Your task to perform on an android device: change the upload size in google photos Image 0: 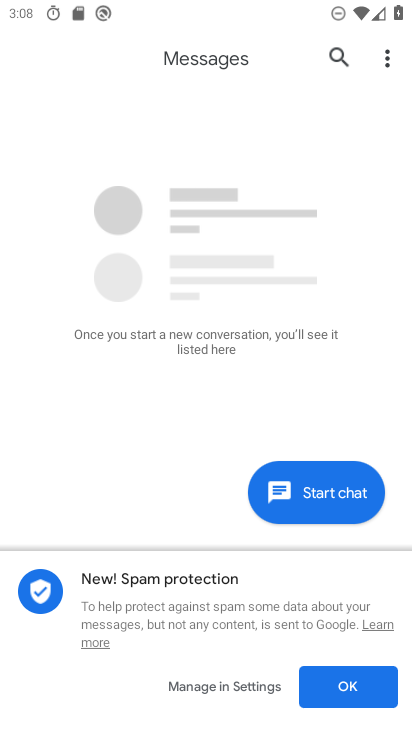
Step 0: press home button
Your task to perform on an android device: change the upload size in google photos Image 1: 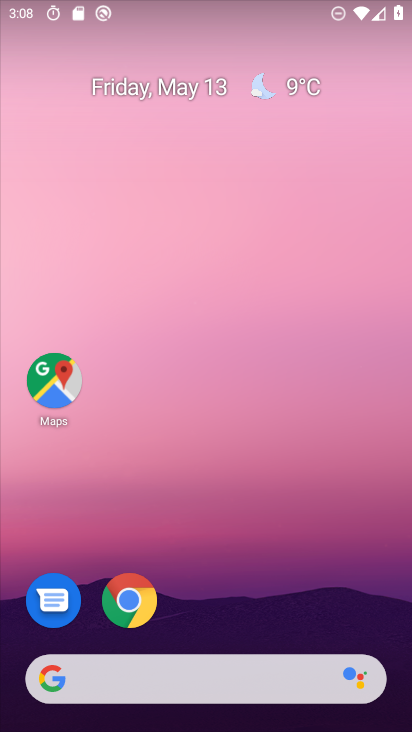
Step 1: drag from (211, 602) to (244, 65)
Your task to perform on an android device: change the upload size in google photos Image 2: 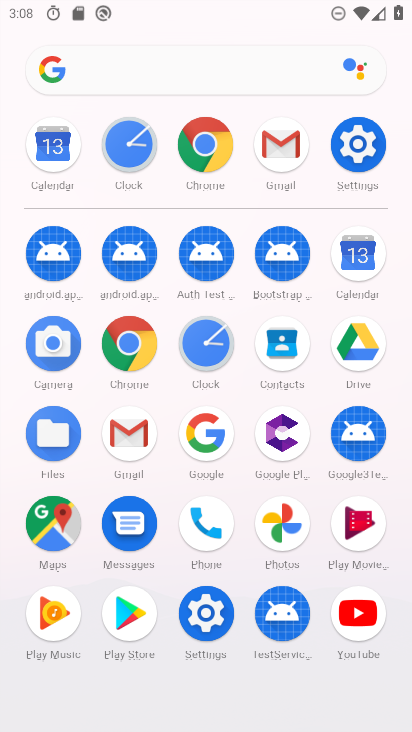
Step 2: click (284, 512)
Your task to perform on an android device: change the upload size in google photos Image 3: 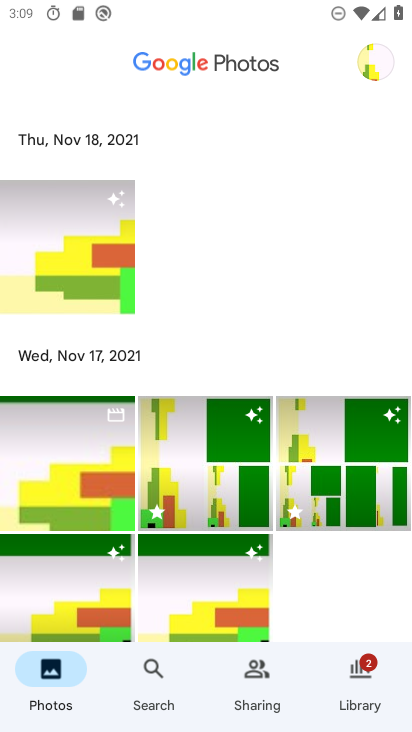
Step 3: click (312, 277)
Your task to perform on an android device: change the upload size in google photos Image 4: 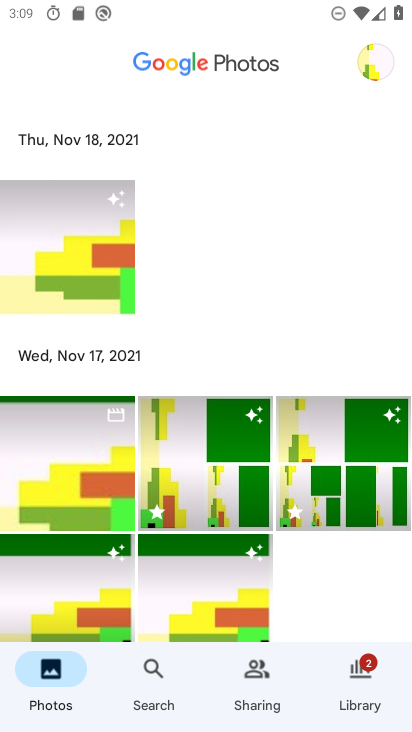
Step 4: click (386, 64)
Your task to perform on an android device: change the upload size in google photos Image 5: 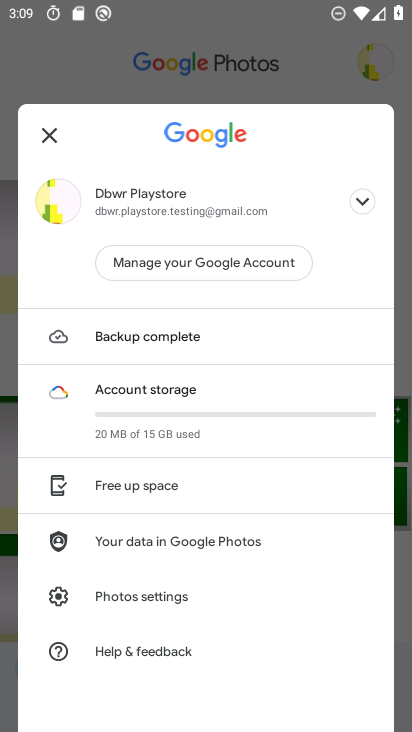
Step 5: click (157, 590)
Your task to perform on an android device: change the upload size in google photos Image 6: 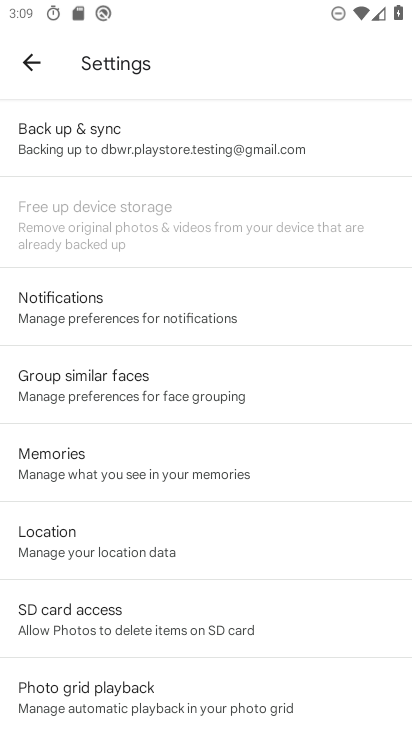
Step 6: click (132, 148)
Your task to perform on an android device: change the upload size in google photos Image 7: 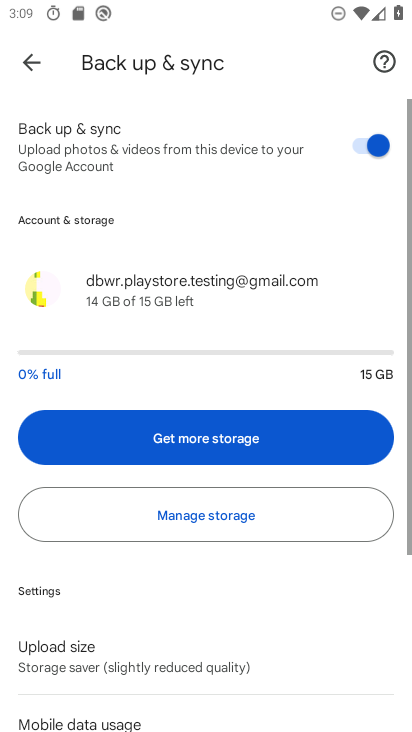
Step 7: drag from (155, 573) to (309, 227)
Your task to perform on an android device: change the upload size in google photos Image 8: 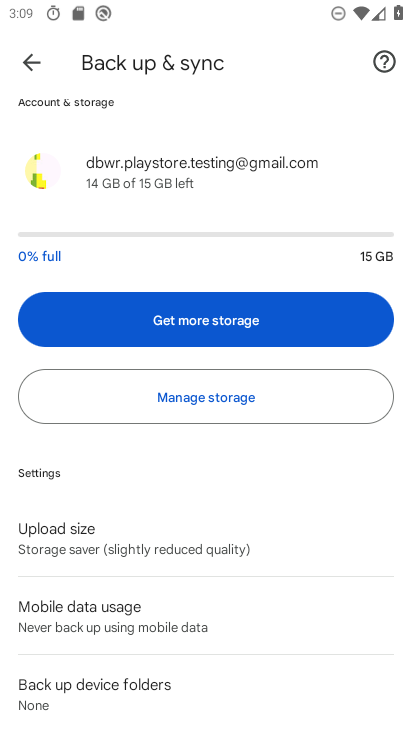
Step 8: click (75, 538)
Your task to perform on an android device: change the upload size in google photos Image 9: 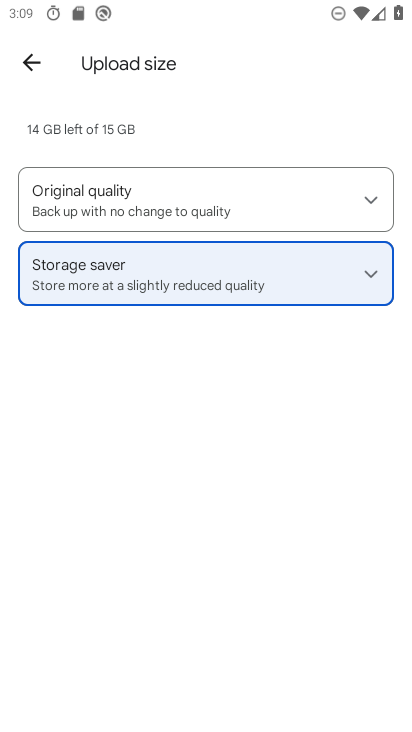
Step 9: click (248, 218)
Your task to perform on an android device: change the upload size in google photos Image 10: 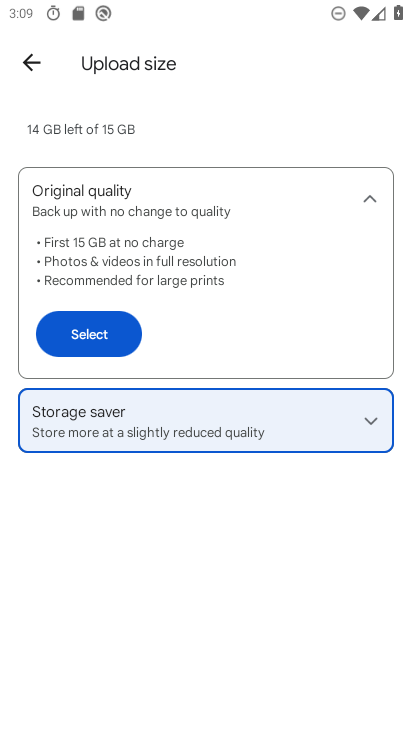
Step 10: click (84, 348)
Your task to perform on an android device: change the upload size in google photos Image 11: 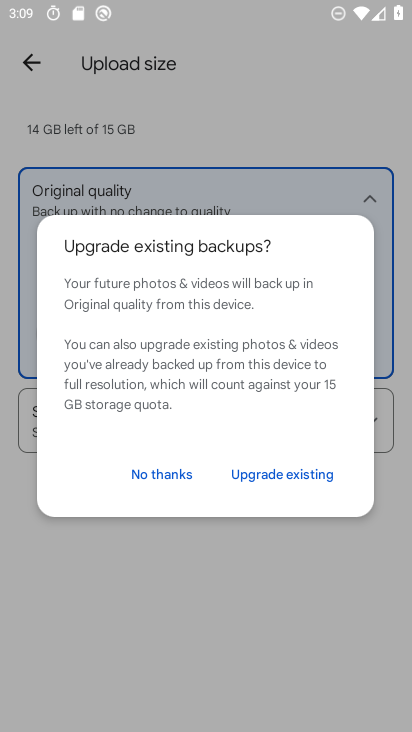
Step 11: task complete